Your task to perform on an android device: Open the map Image 0: 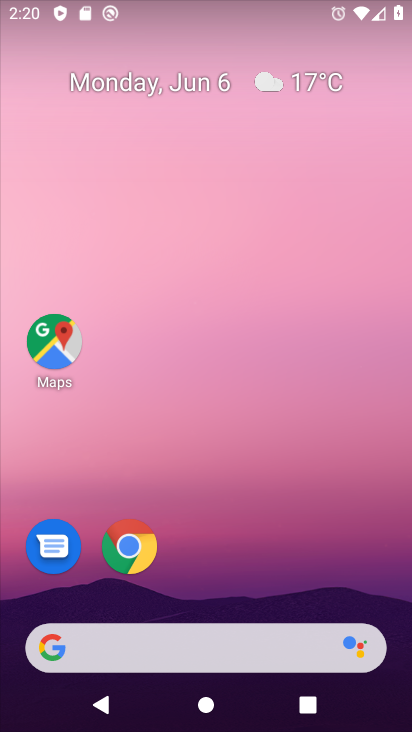
Step 0: click (54, 319)
Your task to perform on an android device: Open the map Image 1: 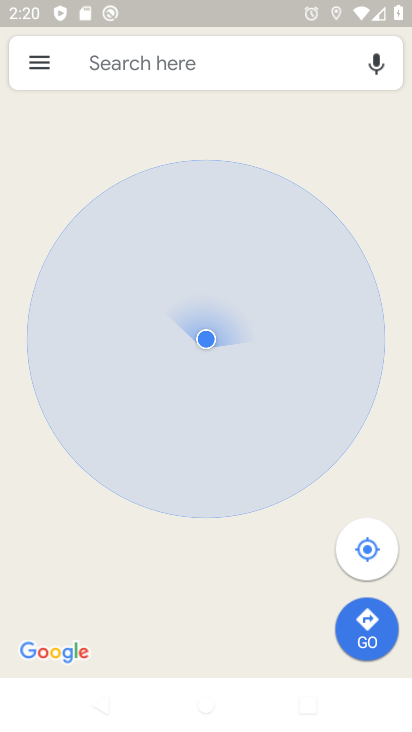
Step 1: task complete